Your task to perform on an android device: Open calendar and show me the third week of next month Image 0: 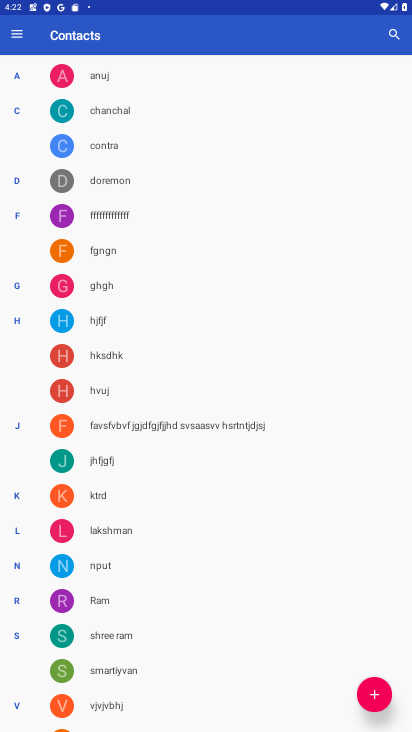
Step 0: press home button
Your task to perform on an android device: Open calendar and show me the third week of next month Image 1: 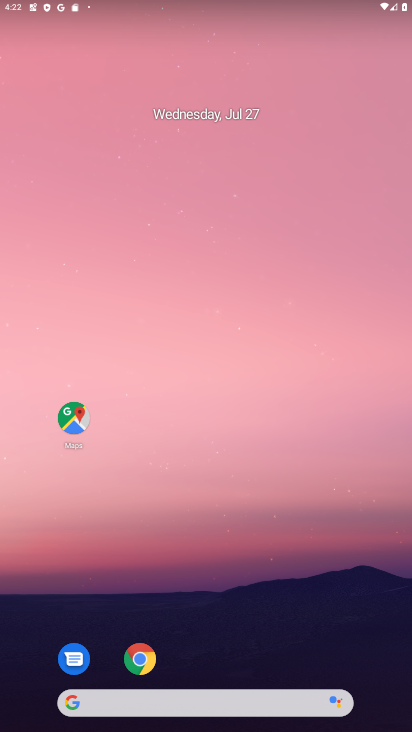
Step 1: drag from (275, 624) to (201, 130)
Your task to perform on an android device: Open calendar and show me the third week of next month Image 2: 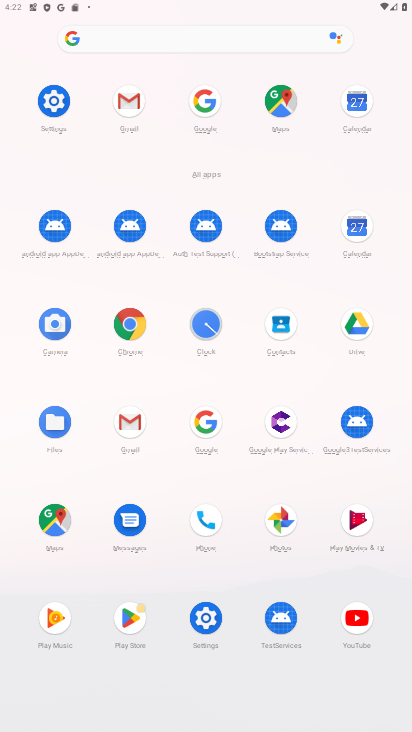
Step 2: click (358, 233)
Your task to perform on an android device: Open calendar and show me the third week of next month Image 3: 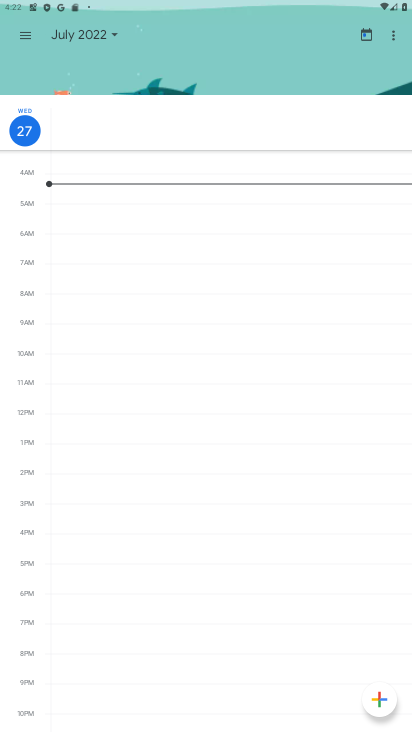
Step 3: click (29, 35)
Your task to perform on an android device: Open calendar and show me the third week of next month Image 4: 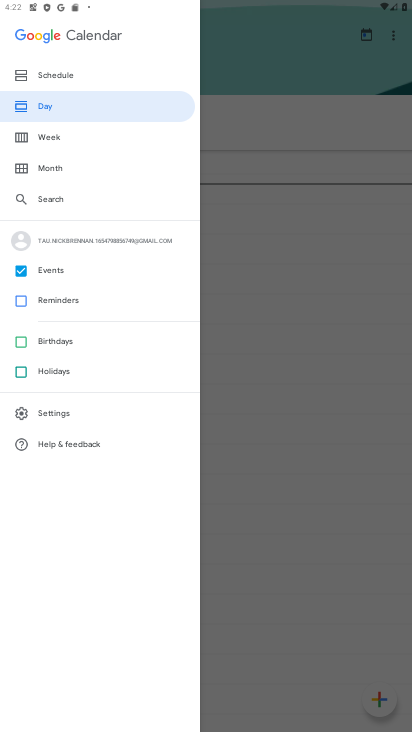
Step 4: click (29, 35)
Your task to perform on an android device: Open calendar and show me the third week of next month Image 5: 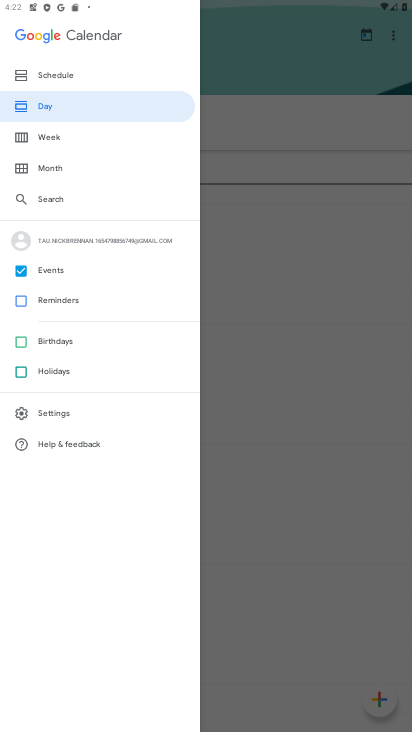
Step 5: click (68, 145)
Your task to perform on an android device: Open calendar and show me the third week of next month Image 6: 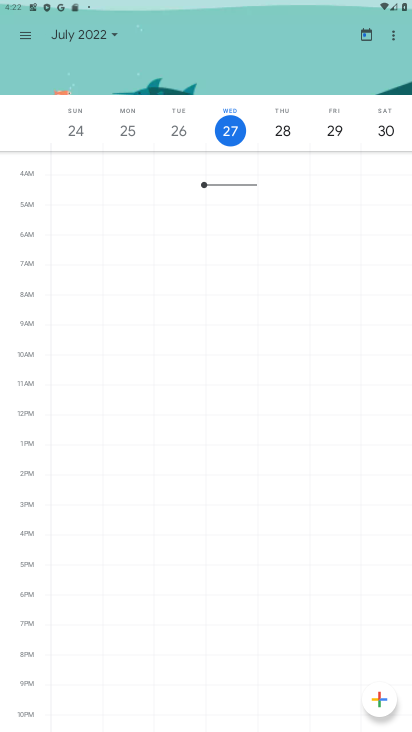
Step 6: click (95, 30)
Your task to perform on an android device: Open calendar and show me the third week of next month Image 7: 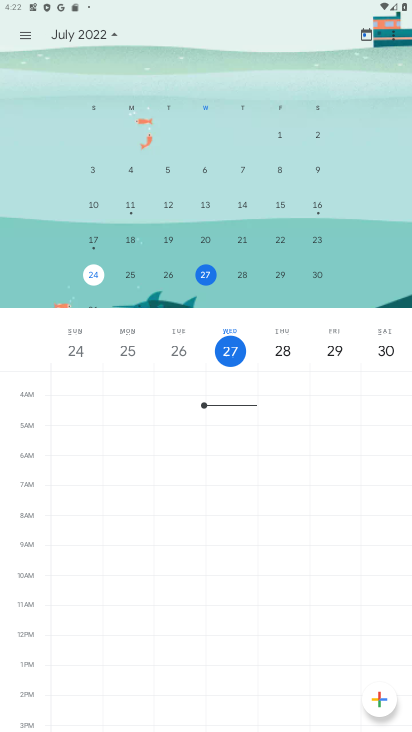
Step 7: drag from (294, 223) to (45, 176)
Your task to perform on an android device: Open calendar and show me the third week of next month Image 8: 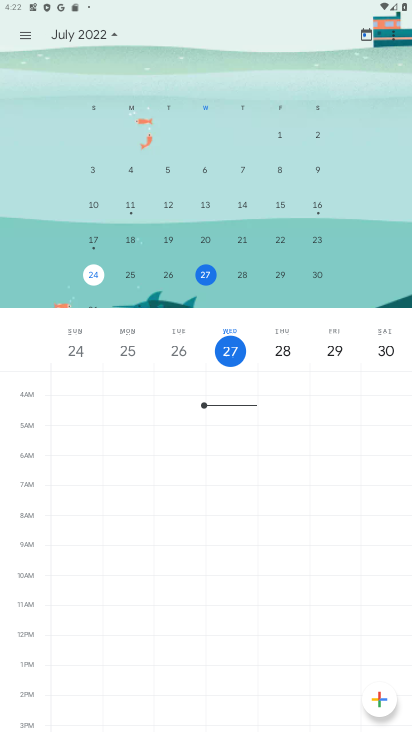
Step 8: drag from (332, 204) to (3, 175)
Your task to perform on an android device: Open calendar and show me the third week of next month Image 9: 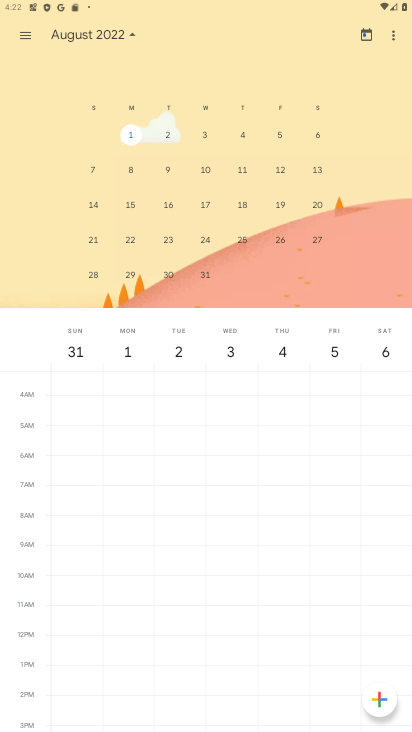
Step 9: click (202, 202)
Your task to perform on an android device: Open calendar and show me the third week of next month Image 10: 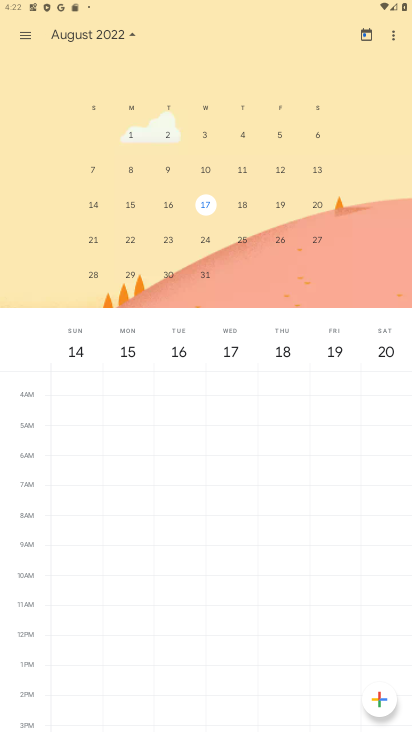
Step 10: task complete